Your task to perform on an android device: What is the news today? Image 0: 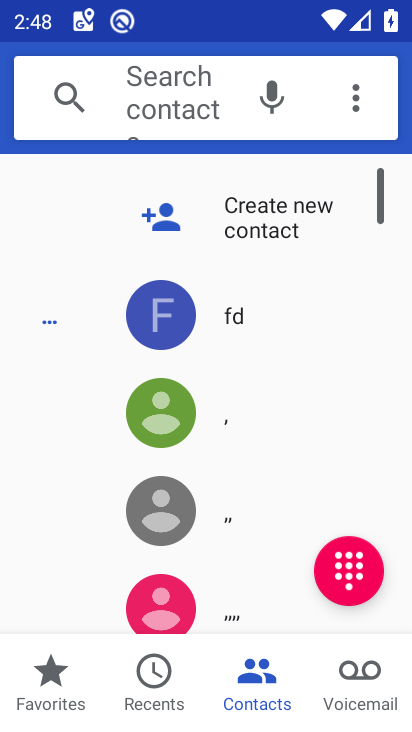
Step 0: press home button
Your task to perform on an android device: What is the news today? Image 1: 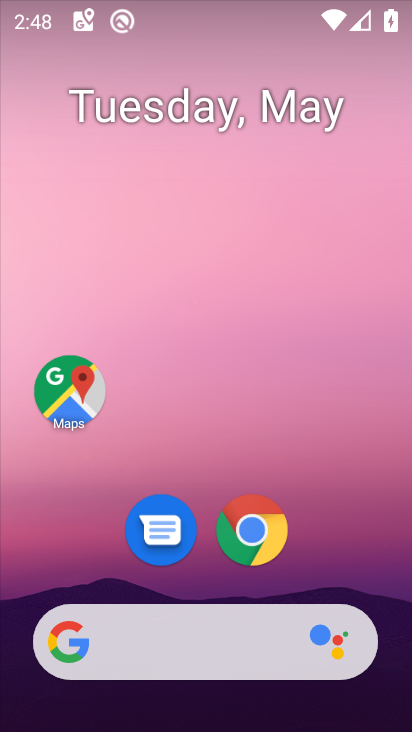
Step 1: click (156, 634)
Your task to perform on an android device: What is the news today? Image 2: 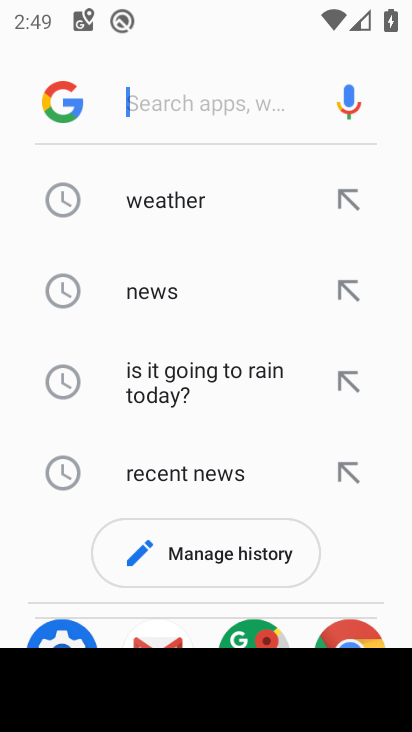
Step 2: click (144, 302)
Your task to perform on an android device: What is the news today? Image 3: 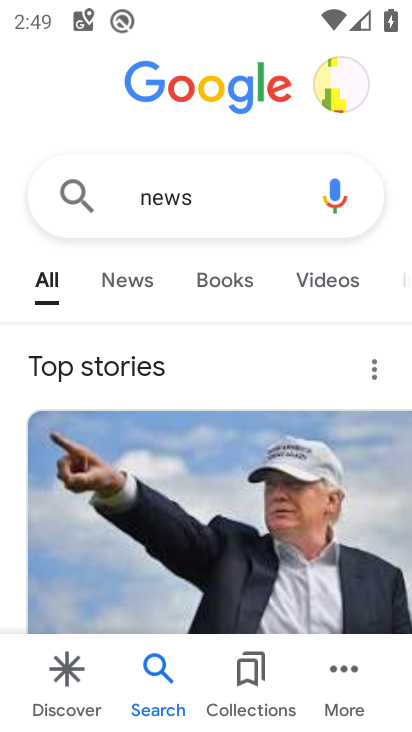
Step 3: task complete